Your task to perform on an android device: stop showing notifications on the lock screen Image 0: 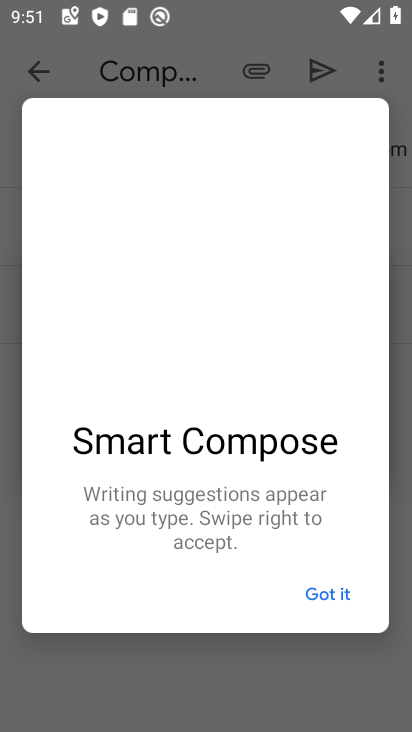
Step 0: press home button
Your task to perform on an android device: stop showing notifications on the lock screen Image 1: 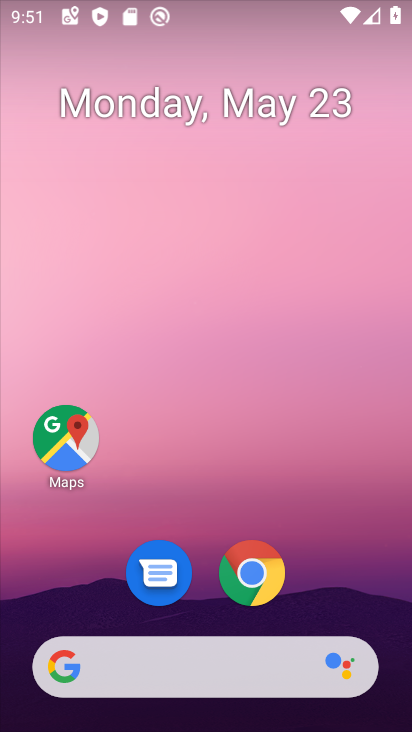
Step 1: drag from (391, 624) to (356, 183)
Your task to perform on an android device: stop showing notifications on the lock screen Image 2: 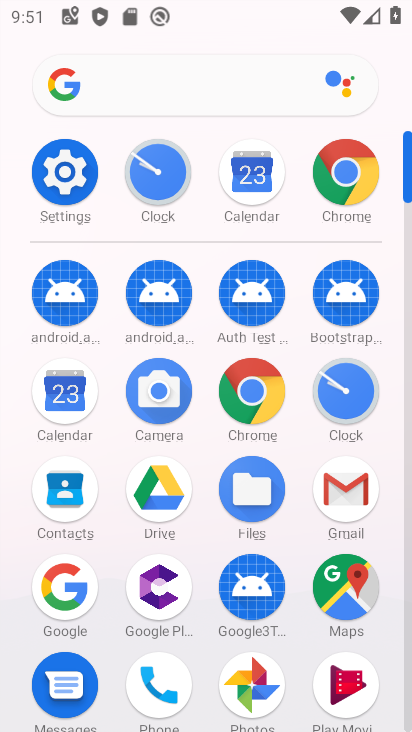
Step 2: click (71, 189)
Your task to perform on an android device: stop showing notifications on the lock screen Image 3: 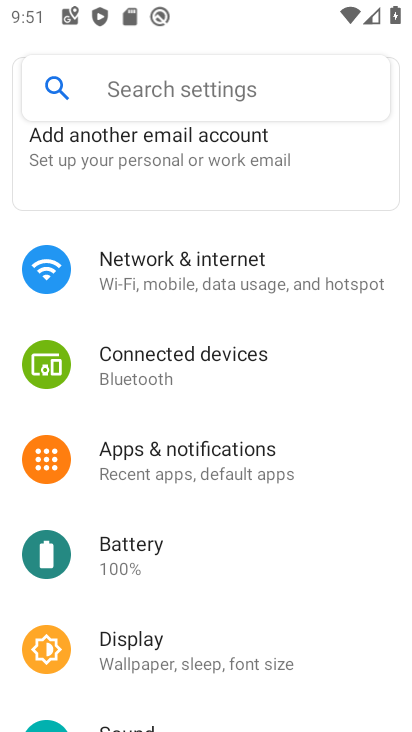
Step 3: drag from (343, 528) to (343, 446)
Your task to perform on an android device: stop showing notifications on the lock screen Image 4: 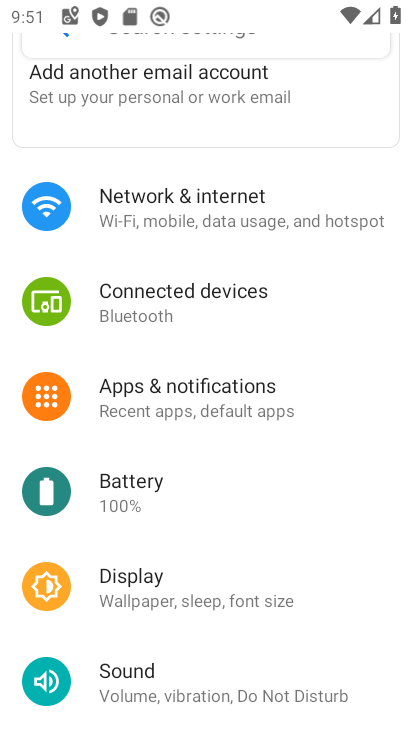
Step 4: drag from (352, 535) to (357, 432)
Your task to perform on an android device: stop showing notifications on the lock screen Image 5: 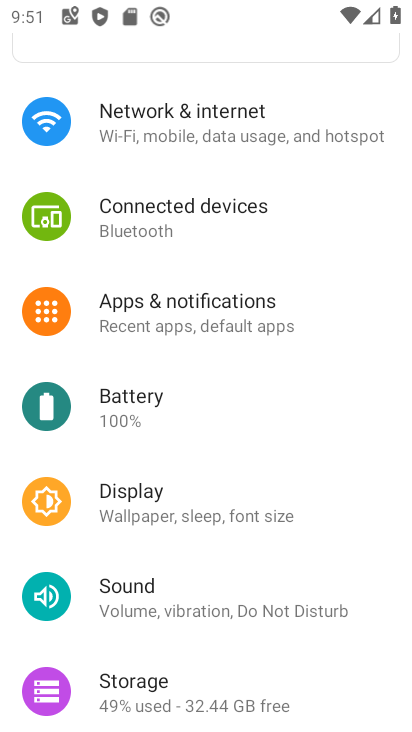
Step 5: drag from (376, 544) to (365, 447)
Your task to perform on an android device: stop showing notifications on the lock screen Image 6: 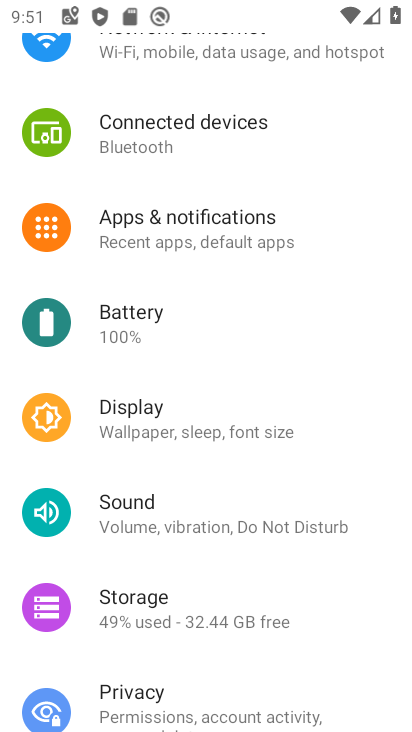
Step 6: drag from (365, 637) to (367, 531)
Your task to perform on an android device: stop showing notifications on the lock screen Image 7: 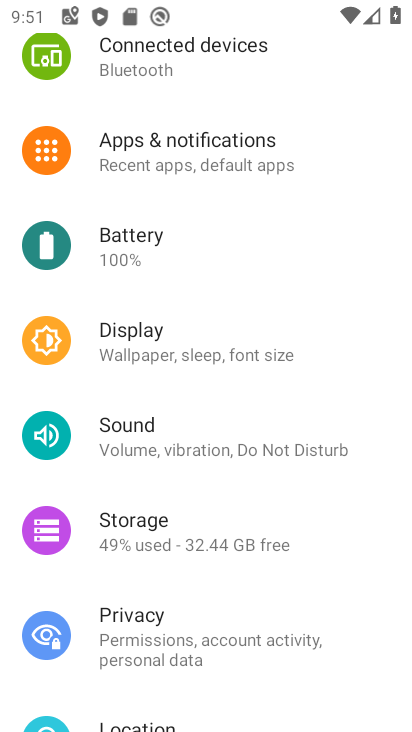
Step 7: drag from (369, 636) to (370, 539)
Your task to perform on an android device: stop showing notifications on the lock screen Image 8: 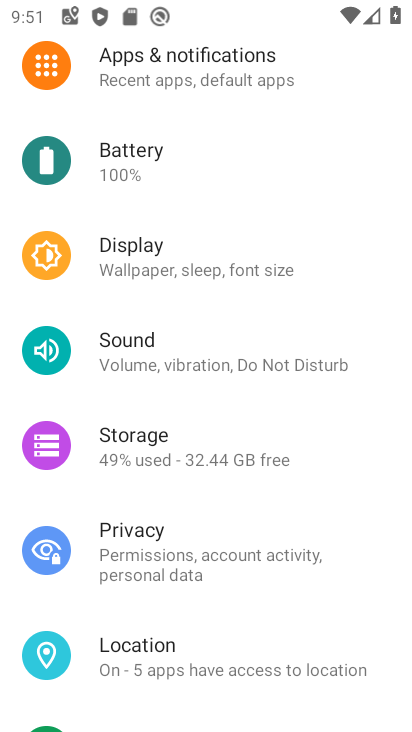
Step 8: drag from (374, 690) to (371, 563)
Your task to perform on an android device: stop showing notifications on the lock screen Image 9: 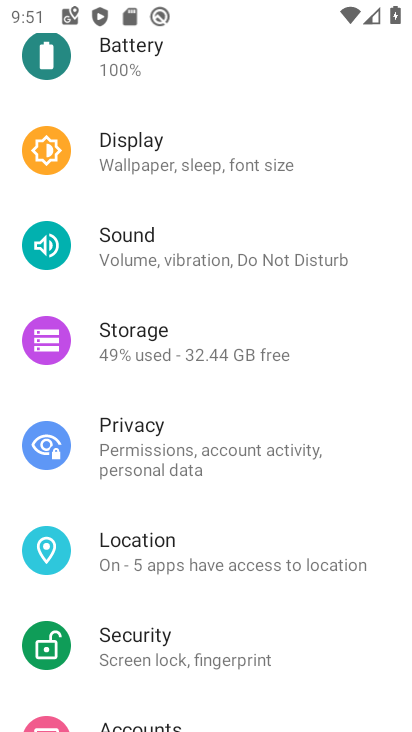
Step 9: drag from (363, 353) to (364, 472)
Your task to perform on an android device: stop showing notifications on the lock screen Image 10: 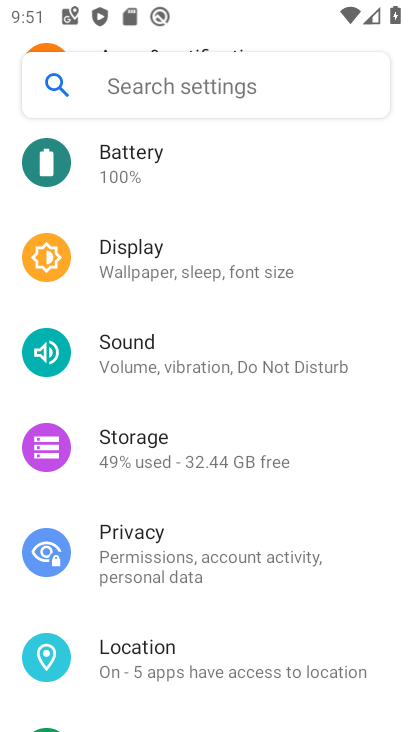
Step 10: drag from (366, 313) to (366, 418)
Your task to perform on an android device: stop showing notifications on the lock screen Image 11: 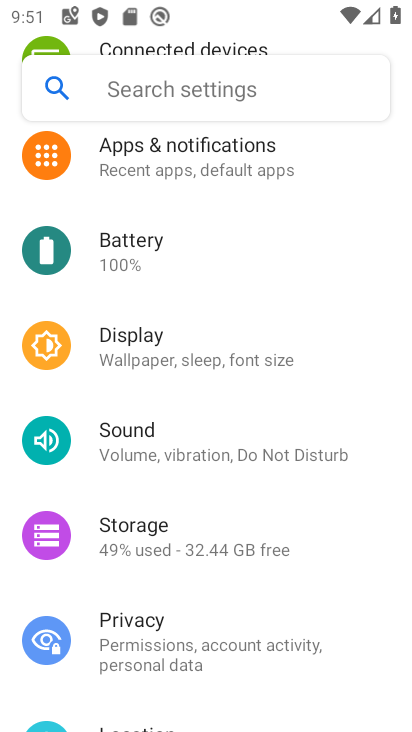
Step 11: drag from (368, 310) to (370, 380)
Your task to perform on an android device: stop showing notifications on the lock screen Image 12: 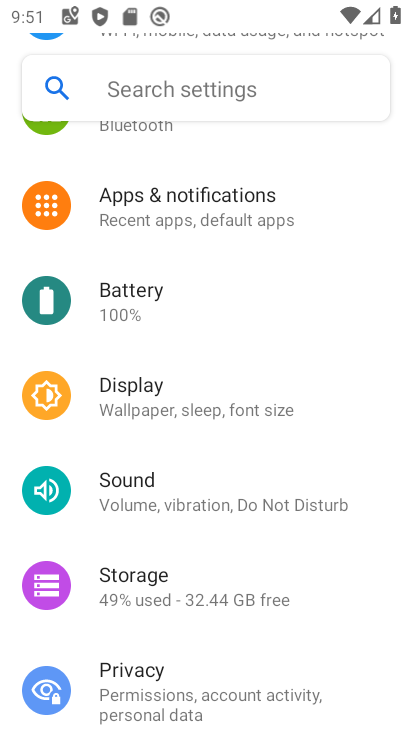
Step 12: drag from (357, 259) to (357, 420)
Your task to perform on an android device: stop showing notifications on the lock screen Image 13: 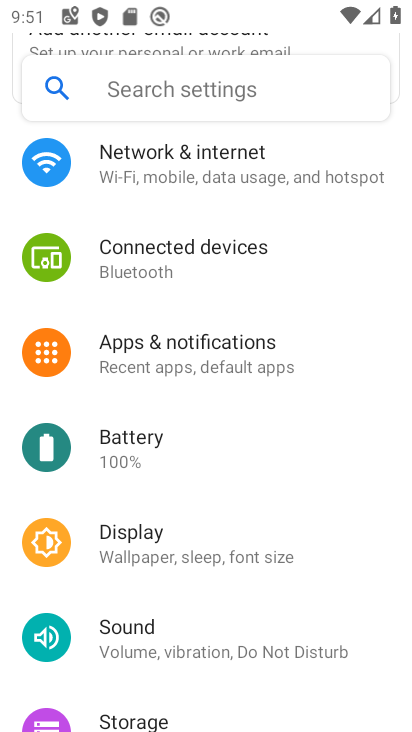
Step 13: drag from (350, 273) to (352, 380)
Your task to perform on an android device: stop showing notifications on the lock screen Image 14: 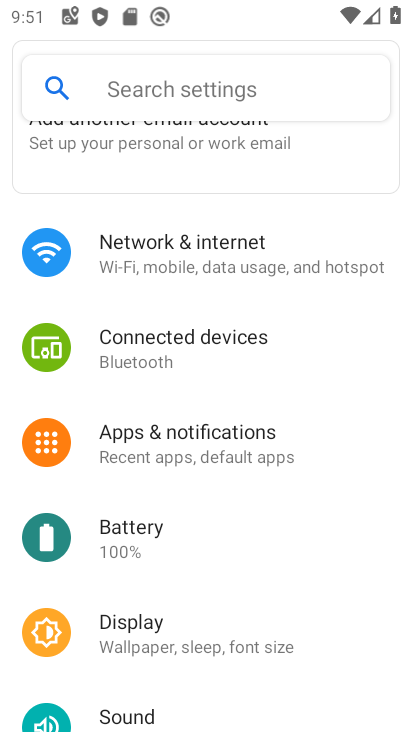
Step 14: click (304, 463)
Your task to perform on an android device: stop showing notifications on the lock screen Image 15: 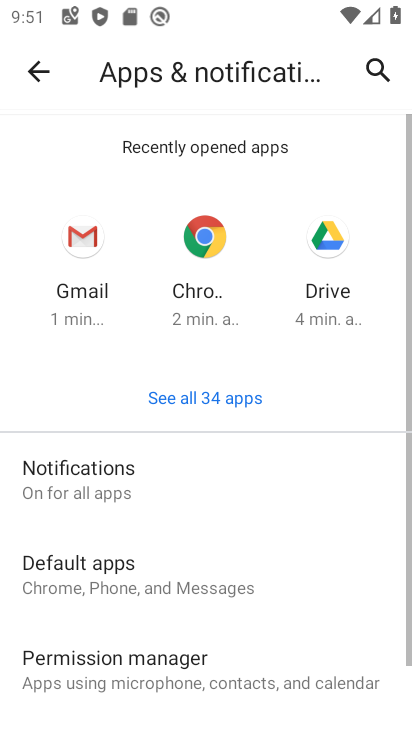
Step 15: drag from (306, 508) to (304, 348)
Your task to perform on an android device: stop showing notifications on the lock screen Image 16: 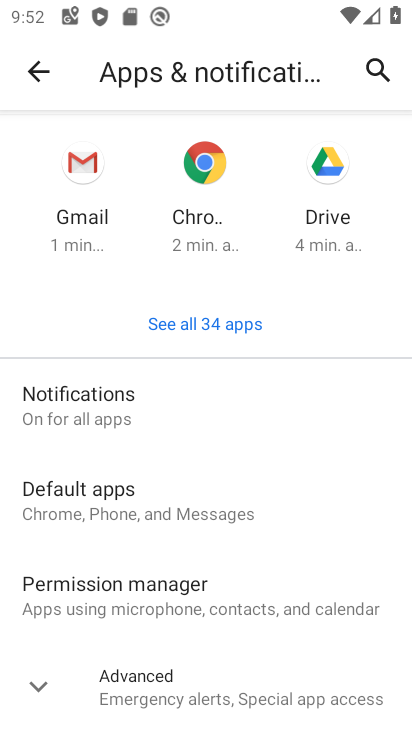
Step 16: click (189, 419)
Your task to perform on an android device: stop showing notifications on the lock screen Image 17: 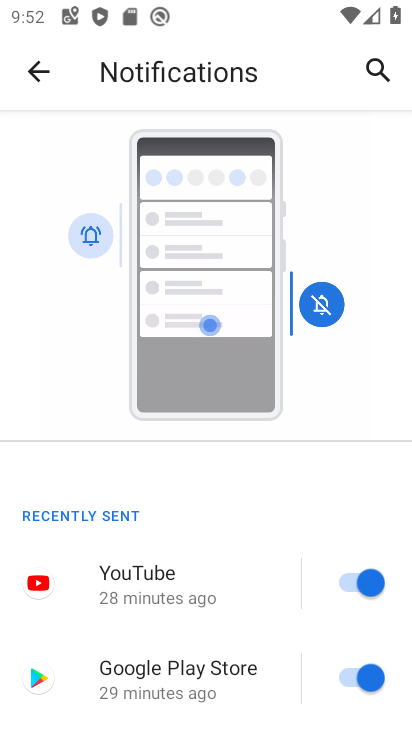
Step 17: drag from (260, 540) to (262, 437)
Your task to perform on an android device: stop showing notifications on the lock screen Image 18: 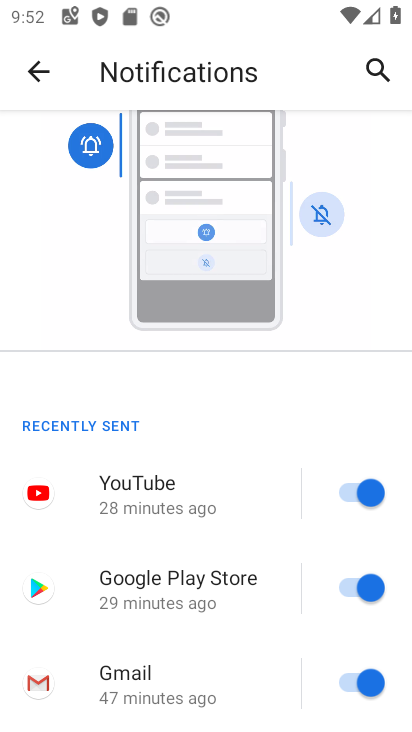
Step 18: drag from (268, 557) to (268, 438)
Your task to perform on an android device: stop showing notifications on the lock screen Image 19: 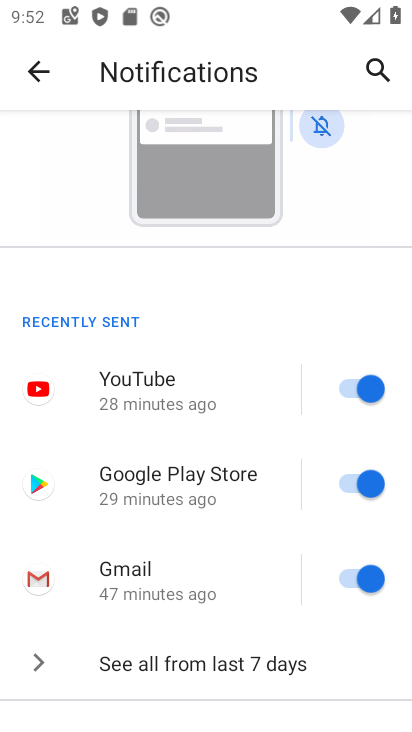
Step 19: drag from (267, 583) to (265, 468)
Your task to perform on an android device: stop showing notifications on the lock screen Image 20: 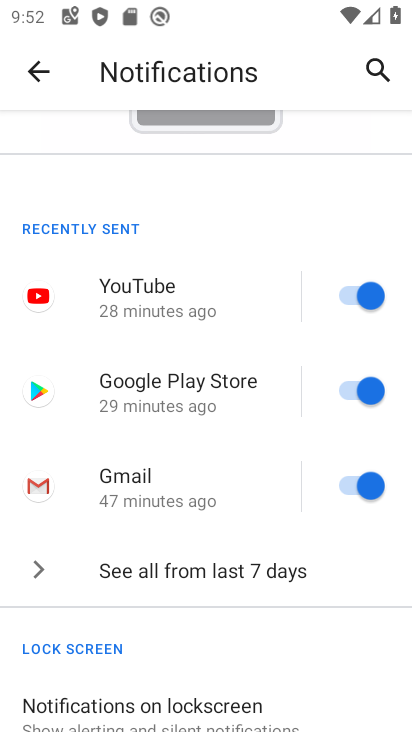
Step 20: drag from (267, 618) to (269, 528)
Your task to perform on an android device: stop showing notifications on the lock screen Image 21: 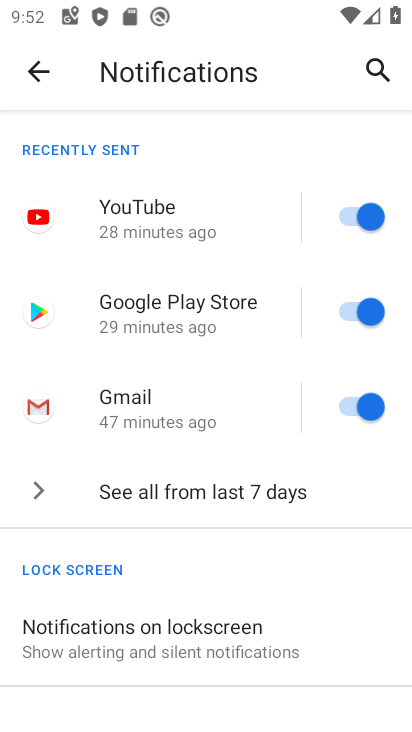
Step 21: drag from (276, 635) to (278, 489)
Your task to perform on an android device: stop showing notifications on the lock screen Image 22: 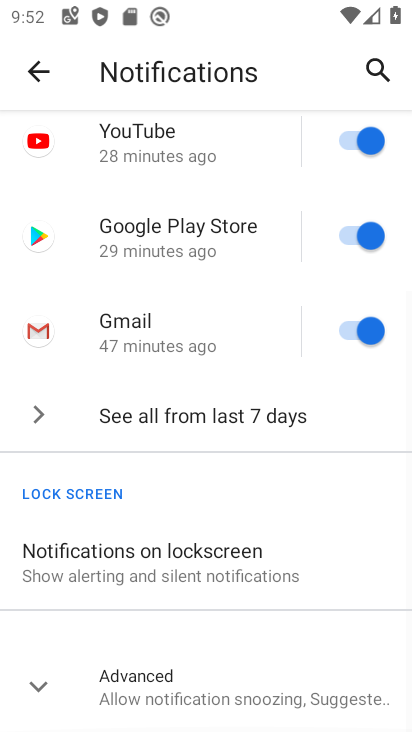
Step 22: click (260, 565)
Your task to perform on an android device: stop showing notifications on the lock screen Image 23: 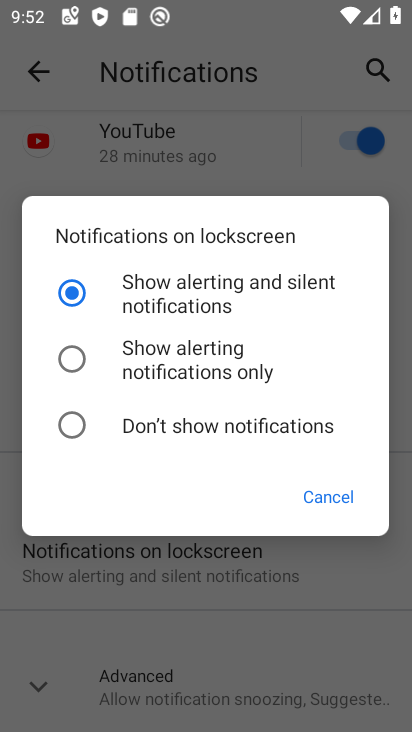
Step 23: click (118, 434)
Your task to perform on an android device: stop showing notifications on the lock screen Image 24: 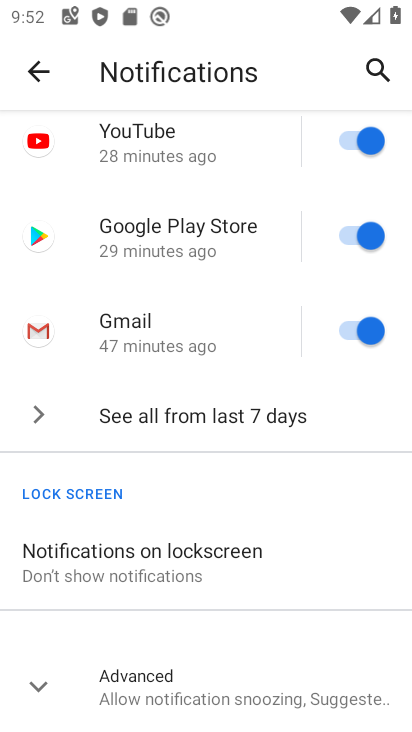
Step 24: task complete